Your task to perform on an android device: add a label to a message in the gmail app Image 0: 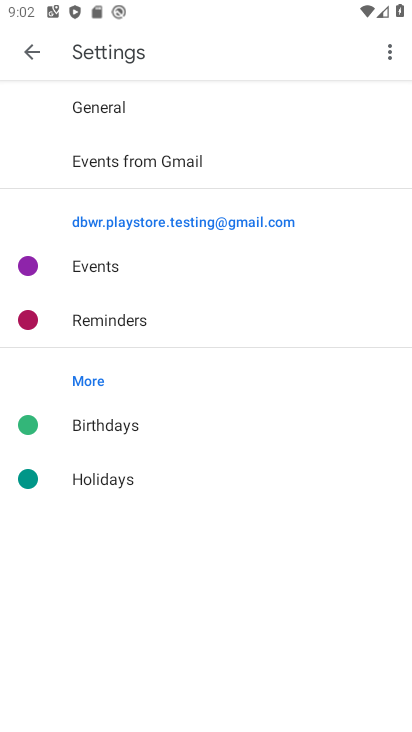
Step 0: press home button
Your task to perform on an android device: add a label to a message in the gmail app Image 1: 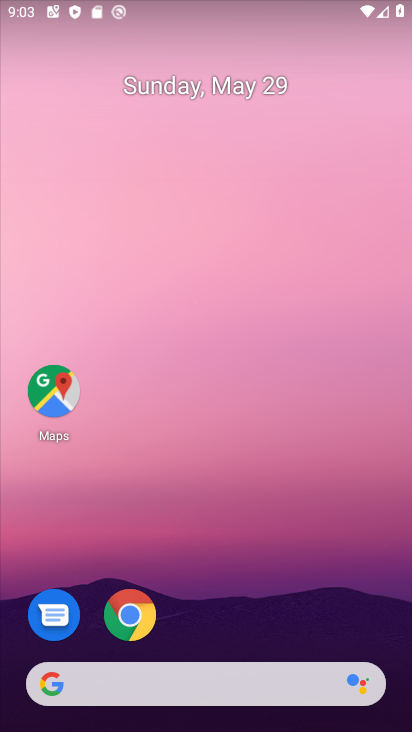
Step 1: drag from (229, 619) to (275, 29)
Your task to perform on an android device: add a label to a message in the gmail app Image 2: 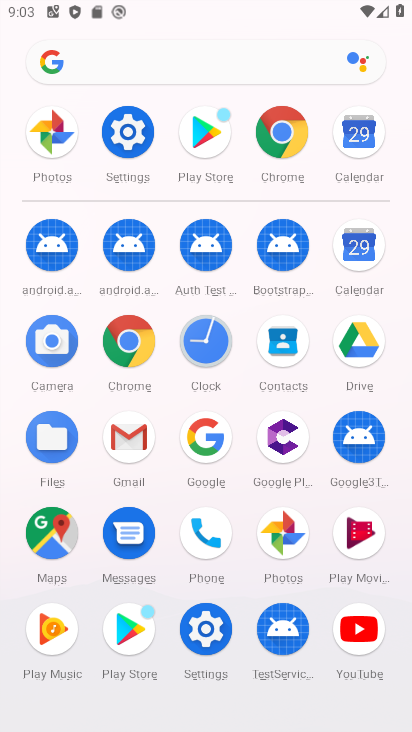
Step 2: click (130, 438)
Your task to perform on an android device: add a label to a message in the gmail app Image 3: 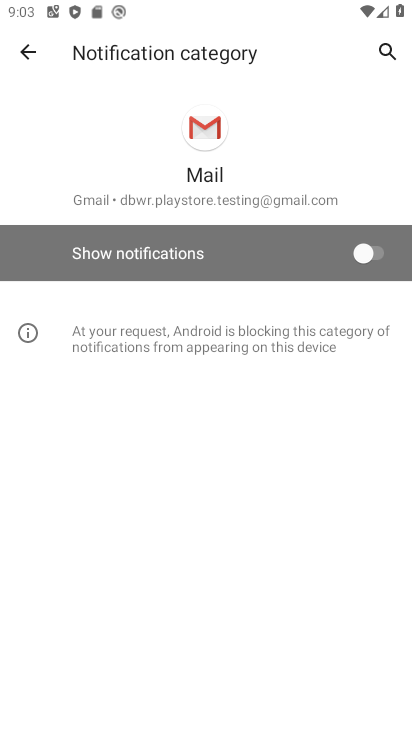
Step 3: click (20, 56)
Your task to perform on an android device: add a label to a message in the gmail app Image 4: 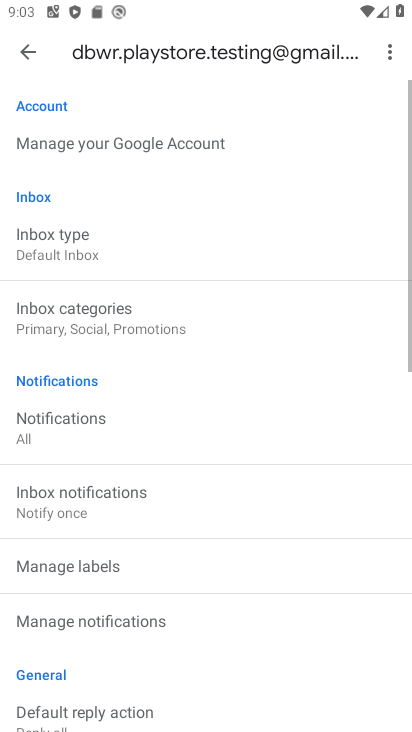
Step 4: click (36, 48)
Your task to perform on an android device: add a label to a message in the gmail app Image 5: 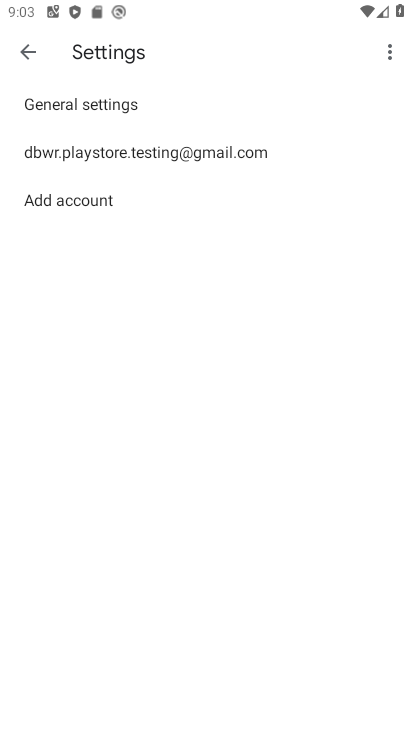
Step 5: click (36, 48)
Your task to perform on an android device: add a label to a message in the gmail app Image 6: 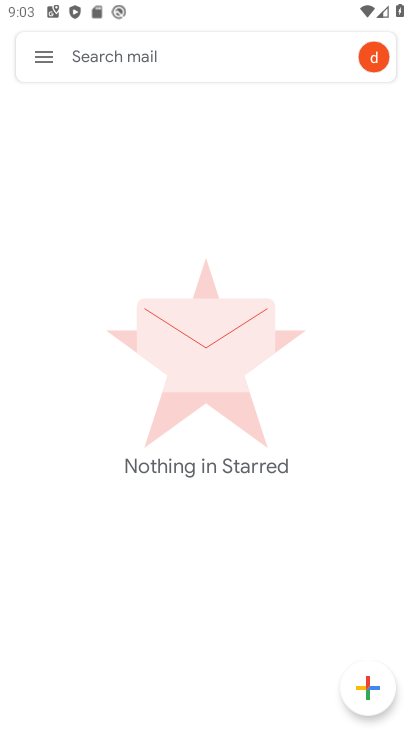
Step 6: click (51, 61)
Your task to perform on an android device: add a label to a message in the gmail app Image 7: 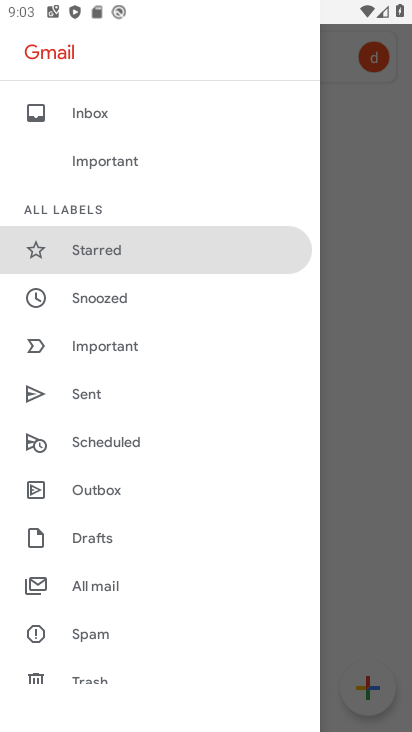
Step 7: click (124, 574)
Your task to perform on an android device: add a label to a message in the gmail app Image 8: 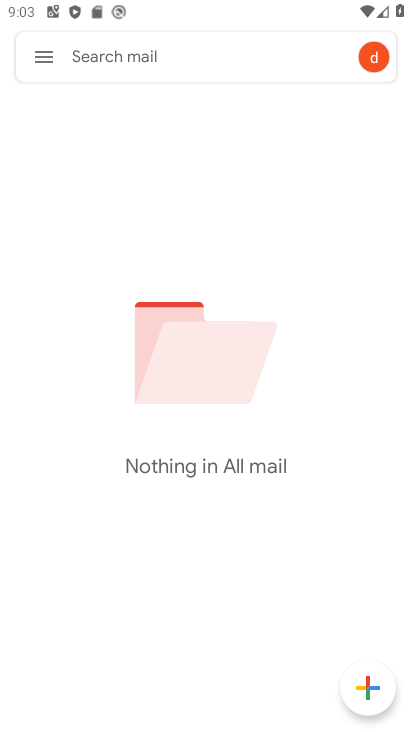
Step 8: task complete